Your task to perform on an android device: turn on bluetooth scan Image 0: 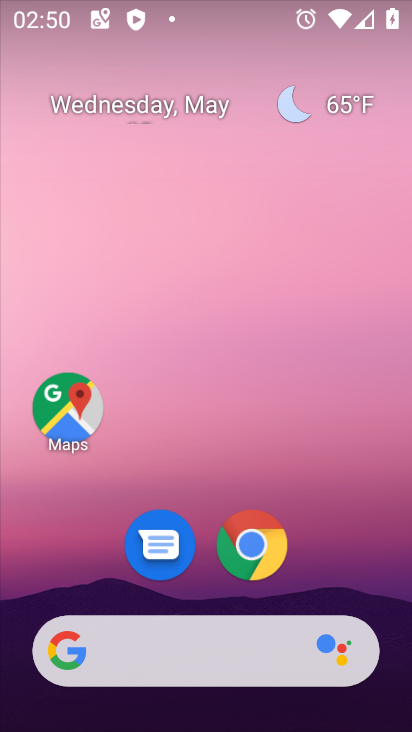
Step 0: drag from (345, 495) to (225, 55)
Your task to perform on an android device: turn on bluetooth scan Image 1: 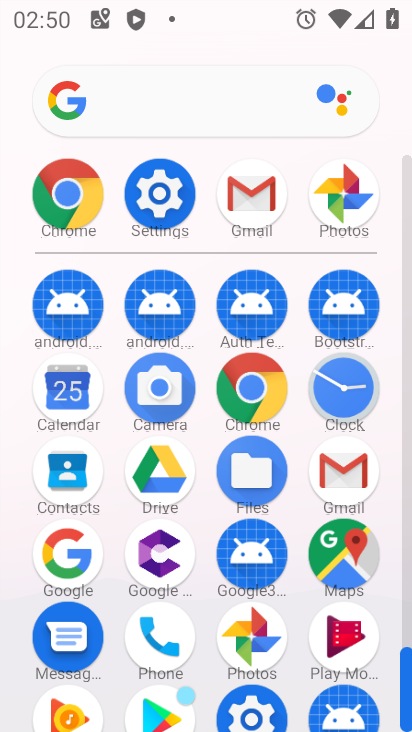
Step 1: click (177, 188)
Your task to perform on an android device: turn on bluetooth scan Image 2: 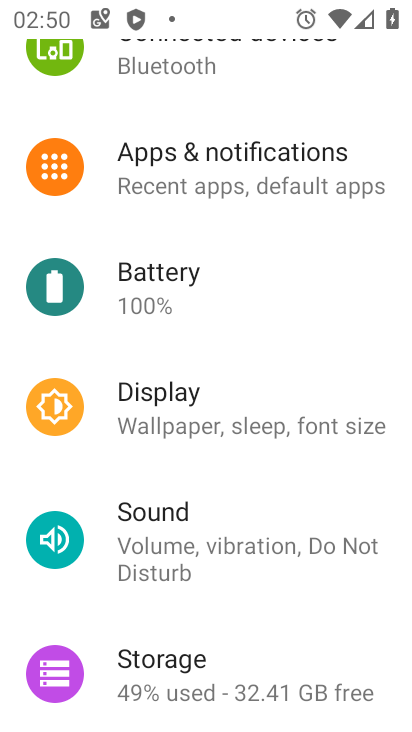
Step 2: drag from (271, 235) to (281, 50)
Your task to perform on an android device: turn on bluetooth scan Image 3: 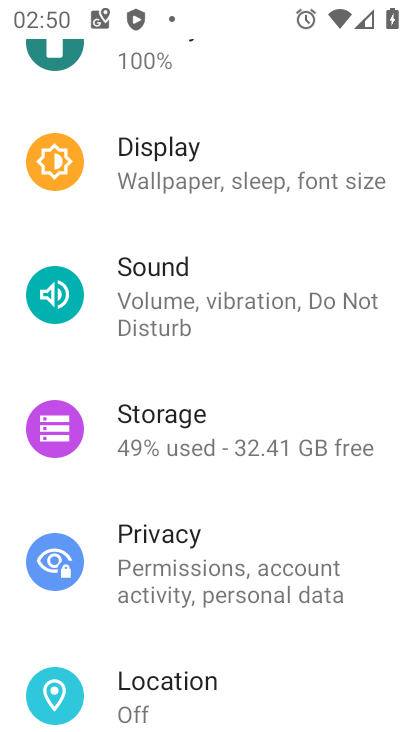
Step 3: click (236, 681)
Your task to perform on an android device: turn on bluetooth scan Image 4: 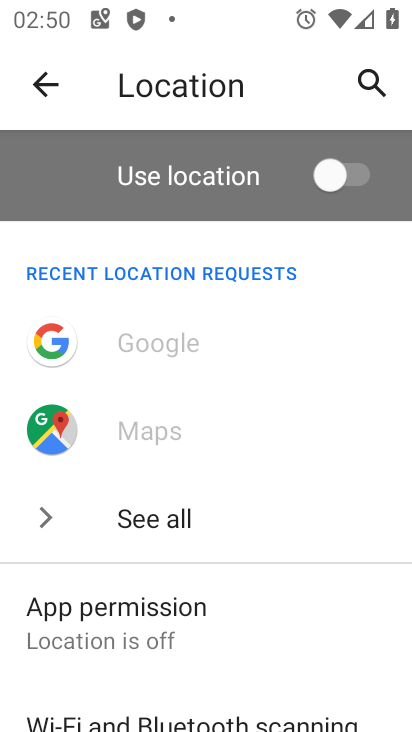
Step 4: drag from (254, 596) to (252, 134)
Your task to perform on an android device: turn on bluetooth scan Image 5: 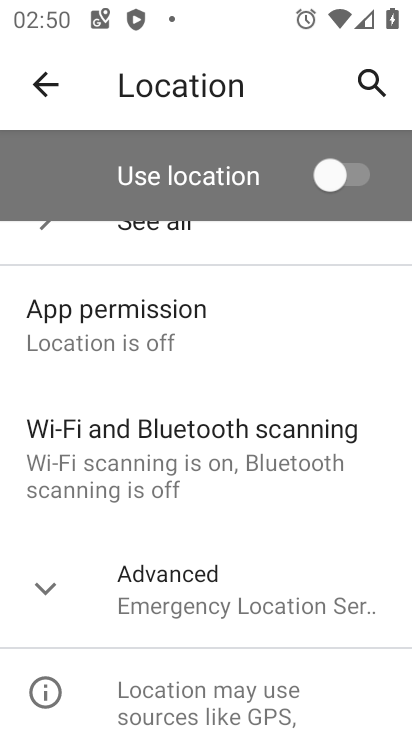
Step 5: click (241, 590)
Your task to perform on an android device: turn on bluetooth scan Image 6: 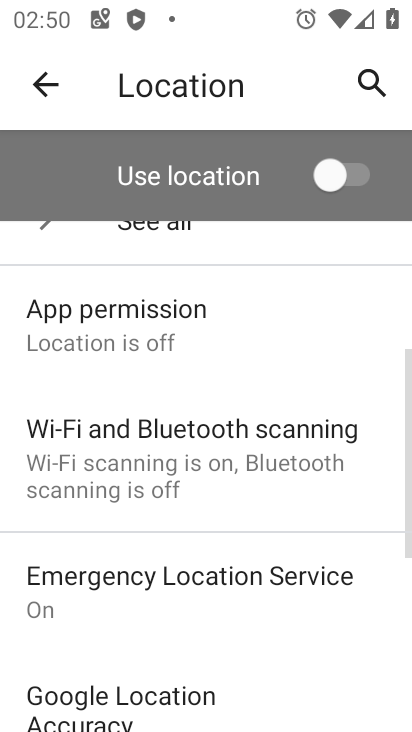
Step 6: drag from (263, 649) to (229, 304)
Your task to perform on an android device: turn on bluetooth scan Image 7: 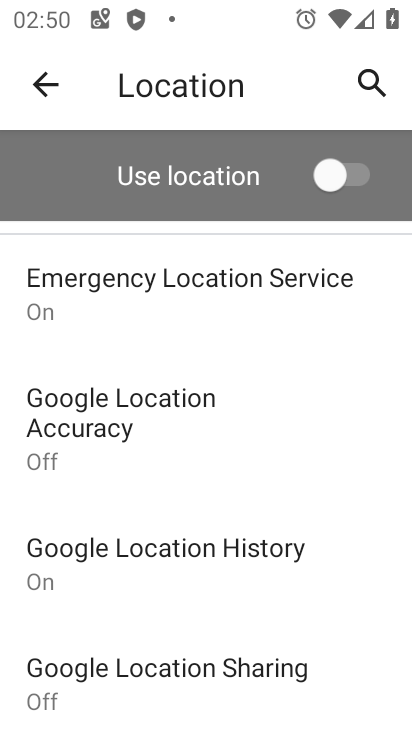
Step 7: drag from (205, 343) to (224, 727)
Your task to perform on an android device: turn on bluetooth scan Image 8: 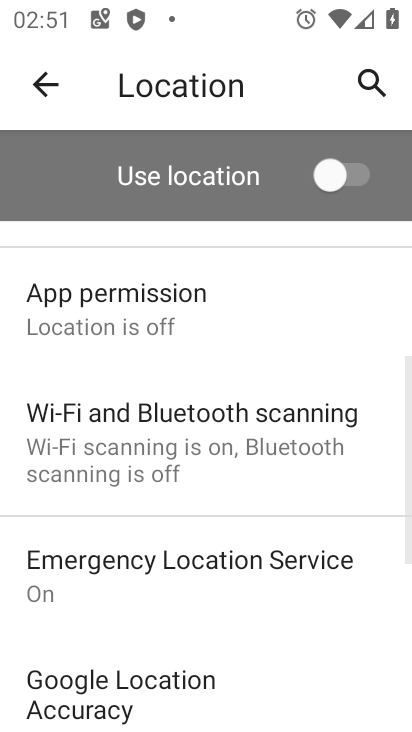
Step 8: click (192, 461)
Your task to perform on an android device: turn on bluetooth scan Image 9: 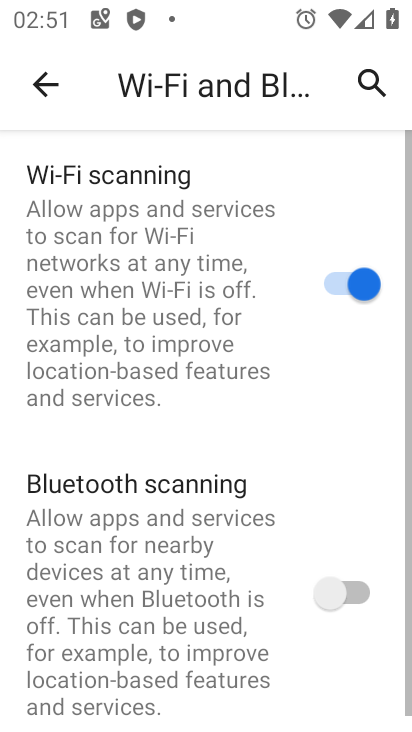
Step 9: click (333, 602)
Your task to perform on an android device: turn on bluetooth scan Image 10: 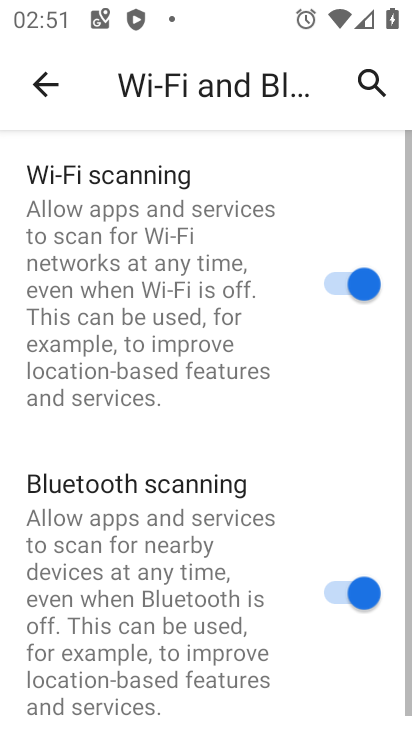
Step 10: task complete